Your task to perform on an android device: Open calendar and show me the second week of next month Image 0: 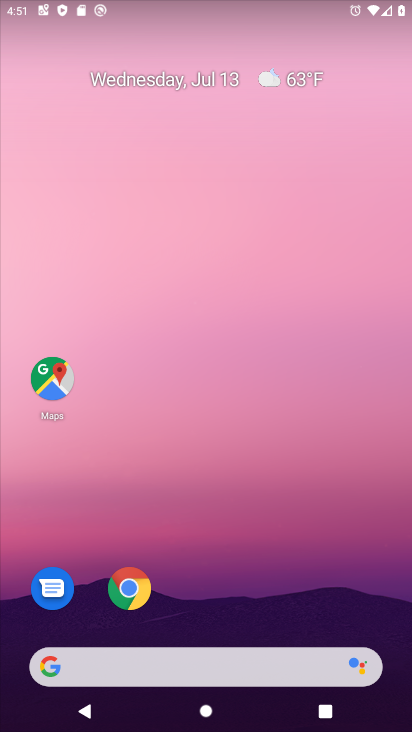
Step 0: drag from (199, 658) to (213, 193)
Your task to perform on an android device: Open calendar and show me the second week of next month Image 1: 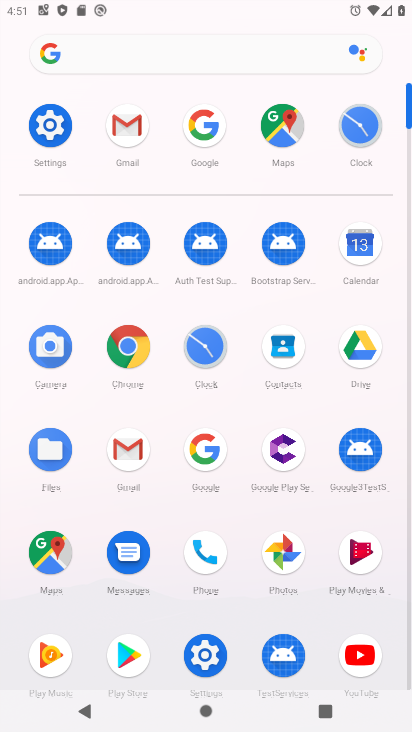
Step 1: click (361, 245)
Your task to perform on an android device: Open calendar and show me the second week of next month Image 2: 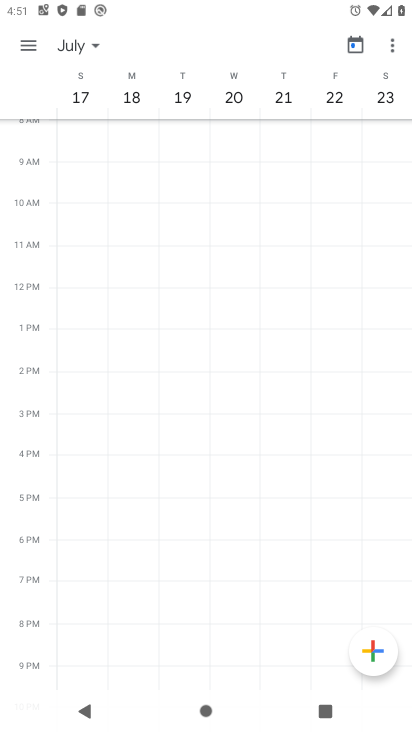
Step 2: click (359, 50)
Your task to perform on an android device: Open calendar and show me the second week of next month Image 3: 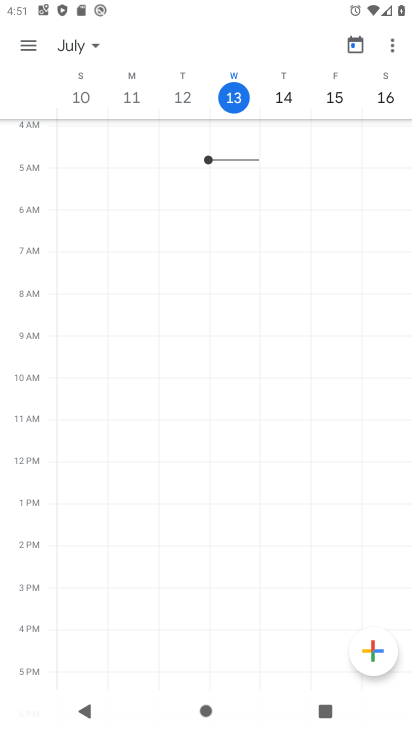
Step 3: click (94, 46)
Your task to perform on an android device: Open calendar and show me the second week of next month Image 4: 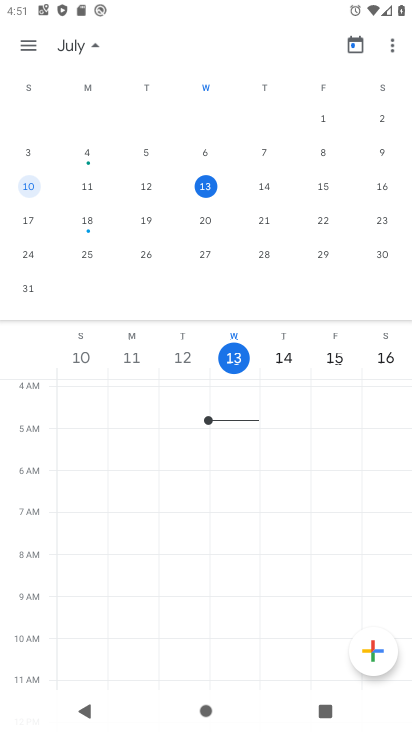
Step 4: drag from (367, 185) to (8, 141)
Your task to perform on an android device: Open calendar and show me the second week of next month Image 5: 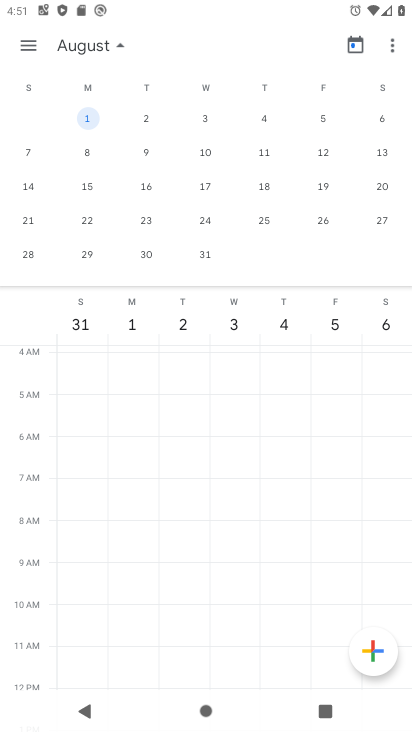
Step 5: click (87, 149)
Your task to perform on an android device: Open calendar and show me the second week of next month Image 6: 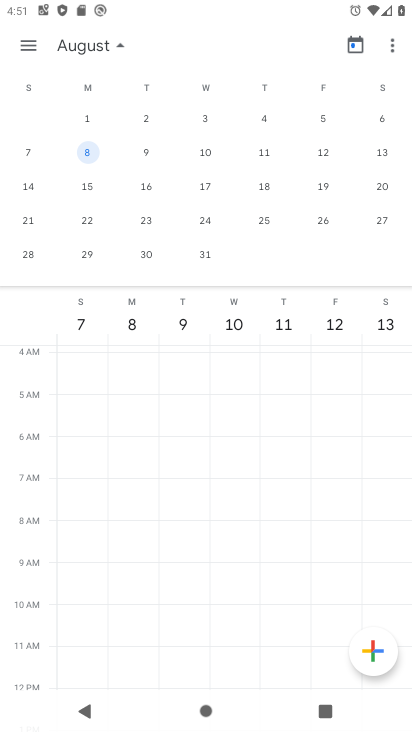
Step 6: click (24, 44)
Your task to perform on an android device: Open calendar and show me the second week of next month Image 7: 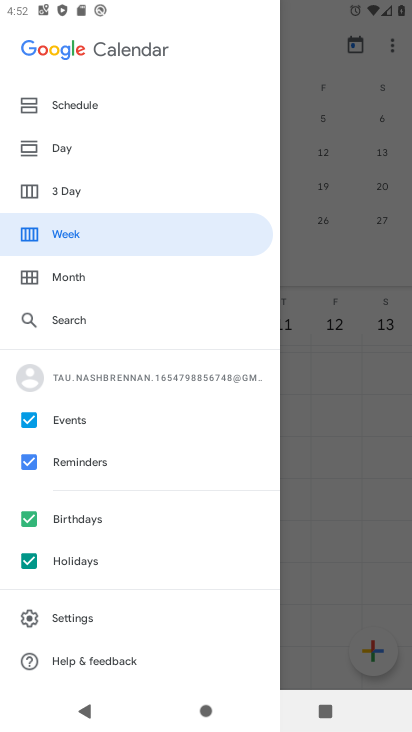
Step 7: click (66, 232)
Your task to perform on an android device: Open calendar and show me the second week of next month Image 8: 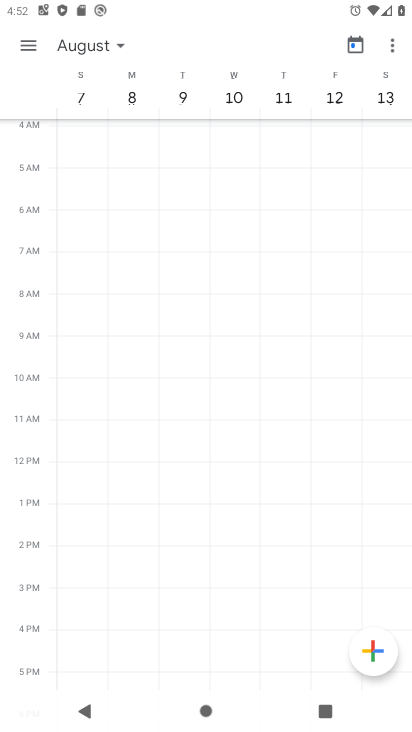
Step 8: task complete